Your task to perform on an android device: Open Chrome and go to the settings page Image 0: 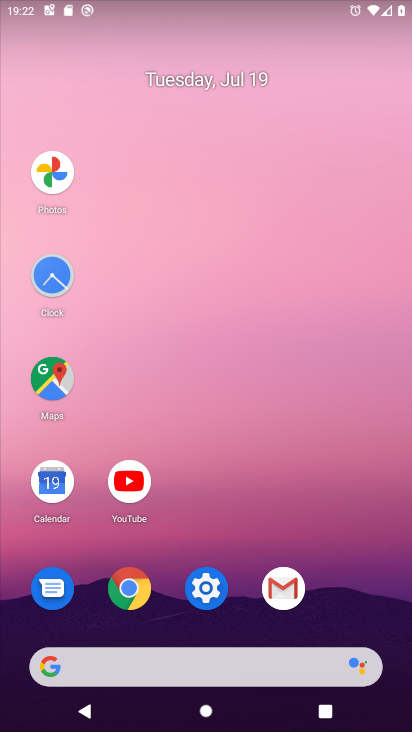
Step 0: click (129, 591)
Your task to perform on an android device: Open Chrome and go to the settings page Image 1: 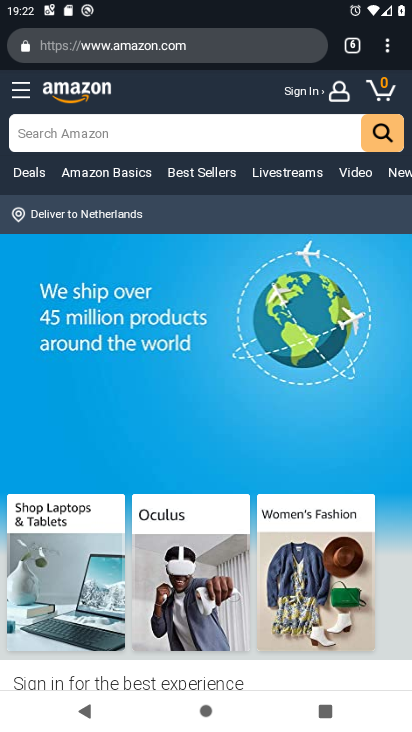
Step 1: click (390, 45)
Your task to perform on an android device: Open Chrome and go to the settings page Image 2: 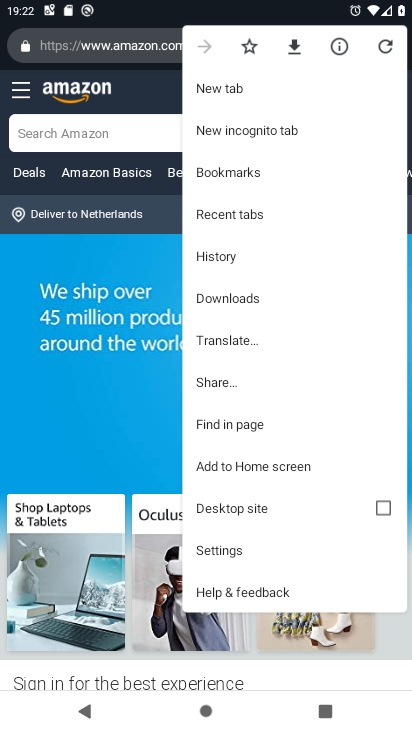
Step 2: click (209, 549)
Your task to perform on an android device: Open Chrome and go to the settings page Image 3: 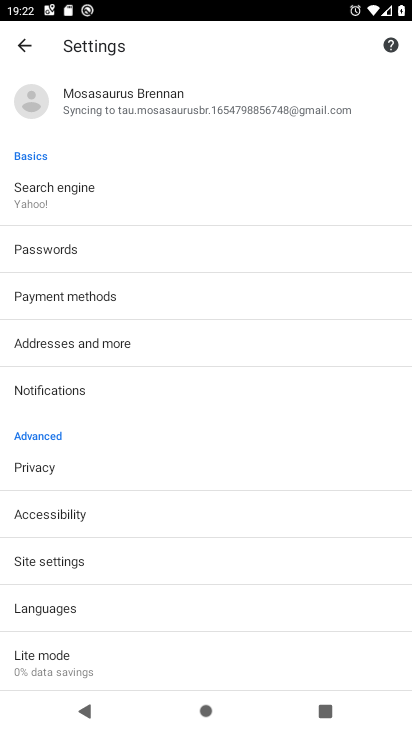
Step 3: task complete